Your task to perform on an android device: set an alarm Image 0: 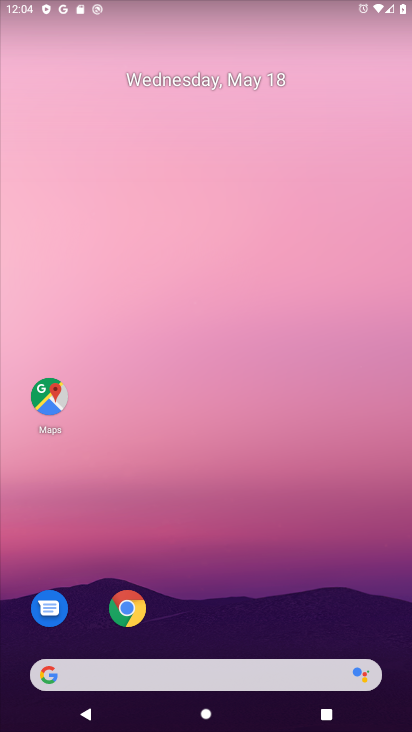
Step 0: drag from (295, 680) to (292, 231)
Your task to perform on an android device: set an alarm Image 1: 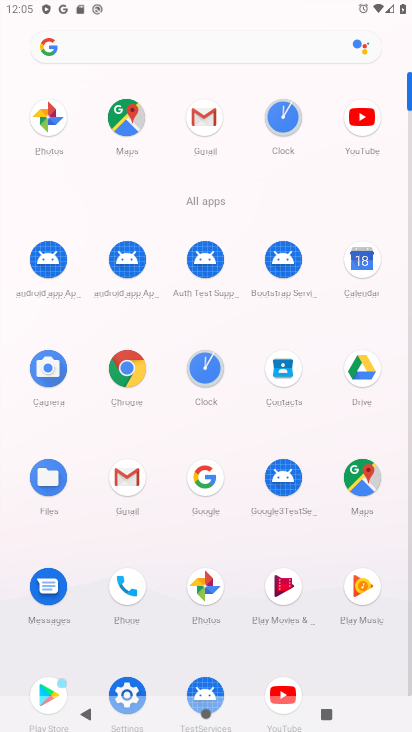
Step 1: click (207, 385)
Your task to perform on an android device: set an alarm Image 2: 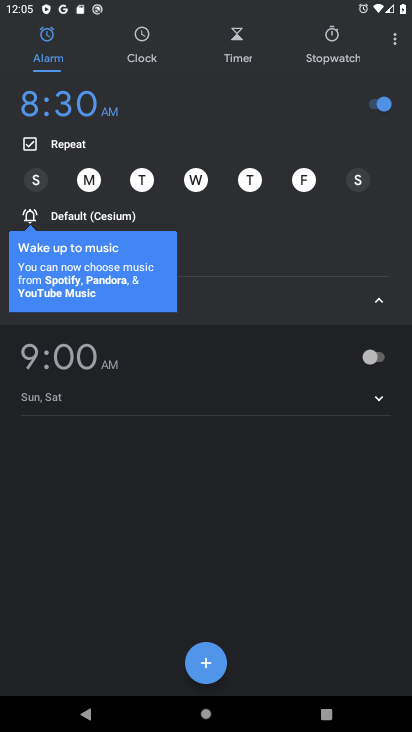
Step 2: click (212, 181)
Your task to perform on an android device: set an alarm Image 3: 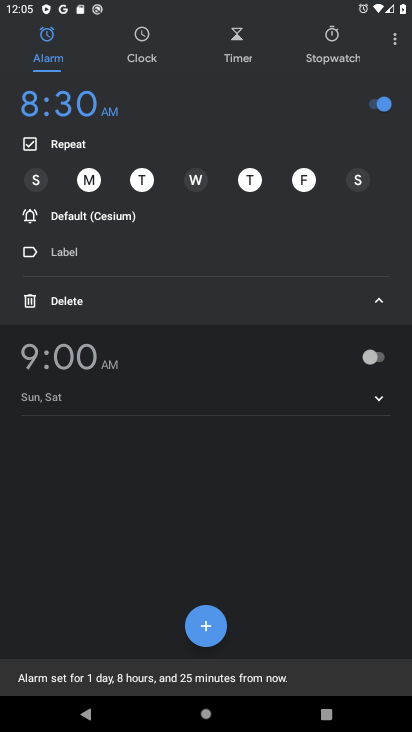
Step 3: click (133, 180)
Your task to perform on an android device: set an alarm Image 4: 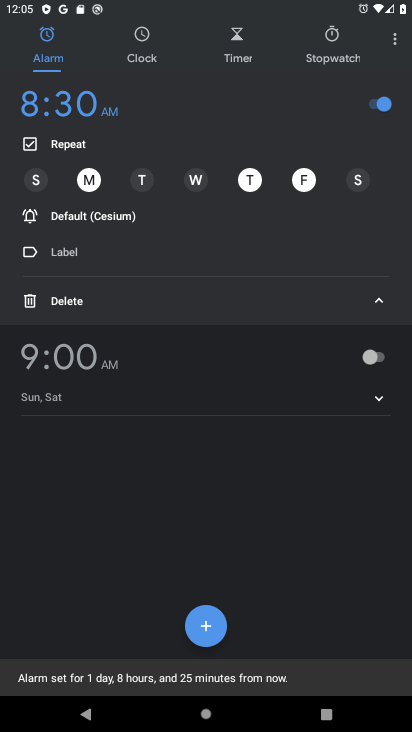
Step 4: click (91, 187)
Your task to perform on an android device: set an alarm Image 5: 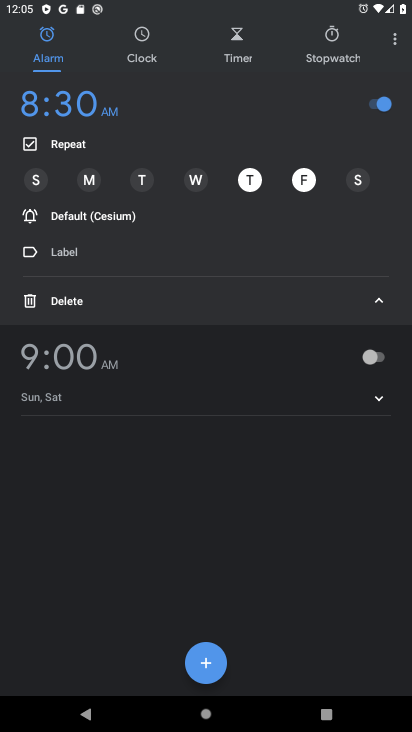
Step 5: task complete